Your task to perform on an android device: Open Google Image 0: 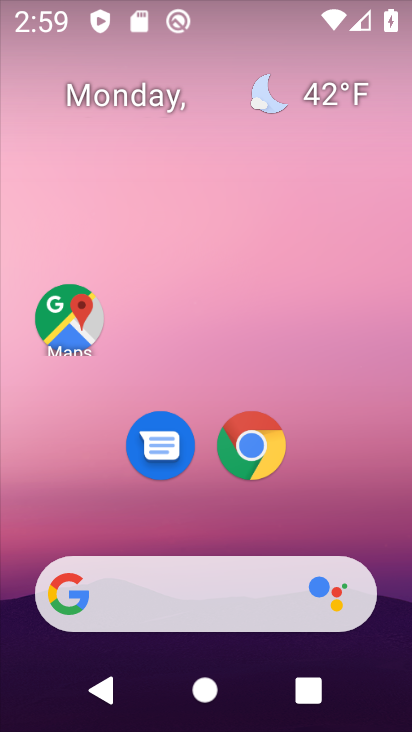
Step 0: drag from (1, 504) to (206, 12)
Your task to perform on an android device: Open Google Image 1: 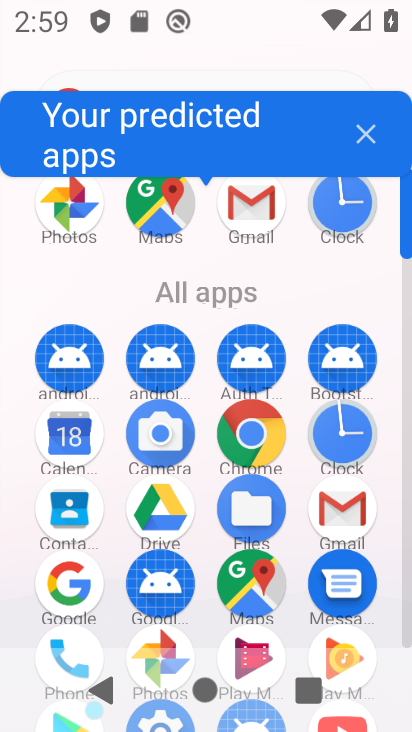
Step 1: click (64, 588)
Your task to perform on an android device: Open Google Image 2: 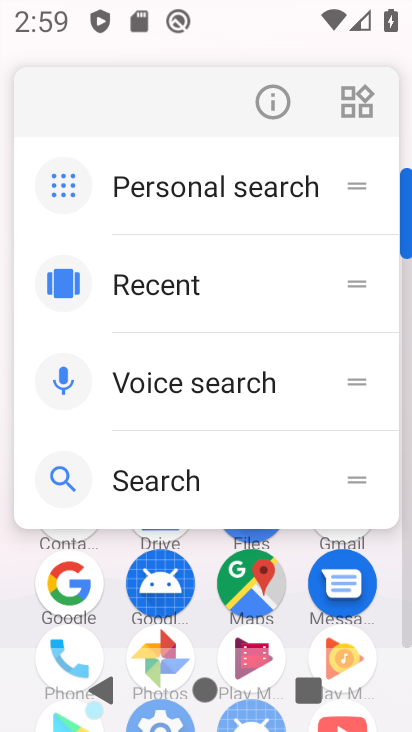
Step 2: click (64, 588)
Your task to perform on an android device: Open Google Image 3: 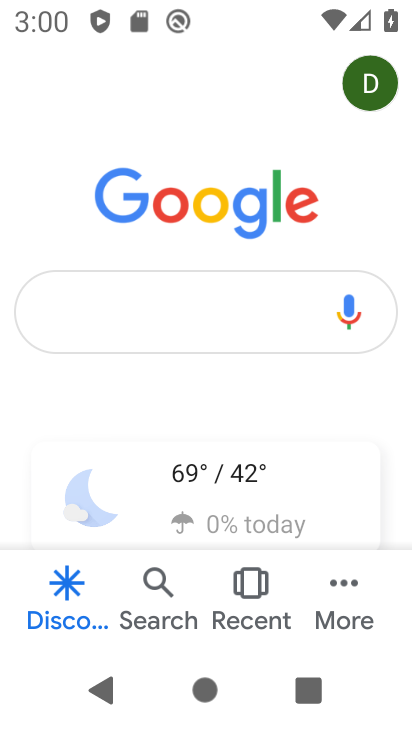
Step 3: task complete